Your task to perform on an android device: turn on translation in the chrome app Image 0: 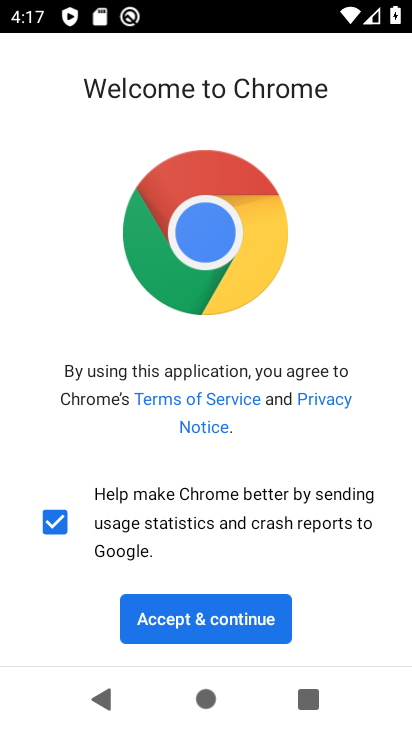
Step 0: press home button
Your task to perform on an android device: turn on translation in the chrome app Image 1: 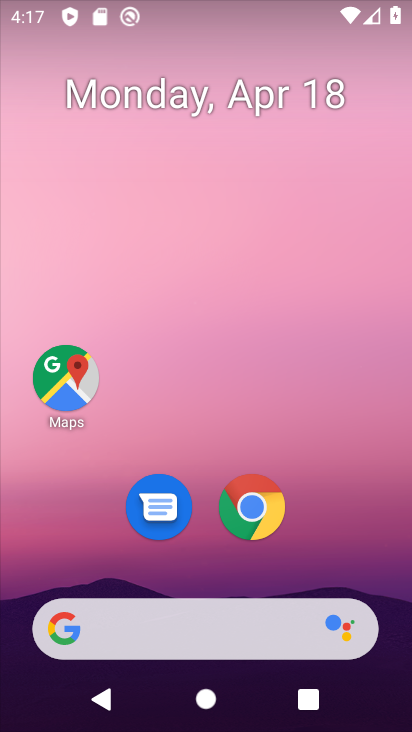
Step 1: click (253, 504)
Your task to perform on an android device: turn on translation in the chrome app Image 2: 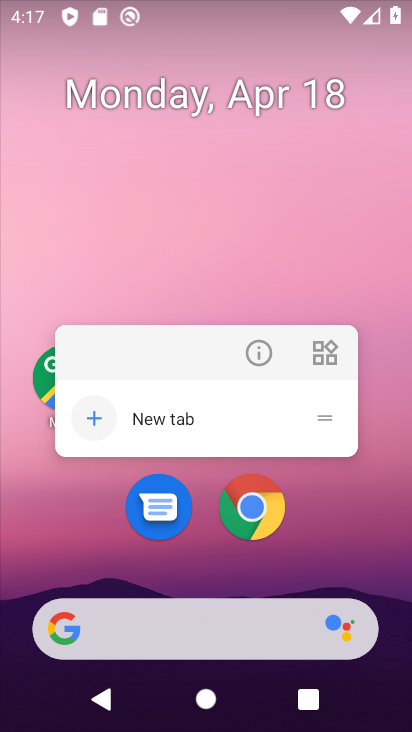
Step 2: drag from (230, 462) to (316, 88)
Your task to perform on an android device: turn on translation in the chrome app Image 3: 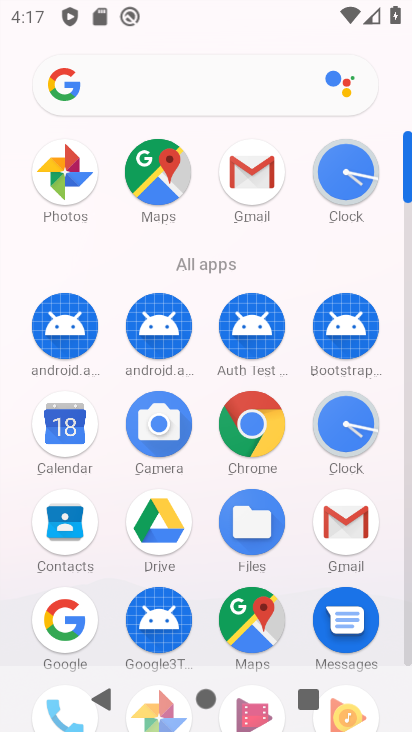
Step 3: click (247, 413)
Your task to perform on an android device: turn on translation in the chrome app Image 4: 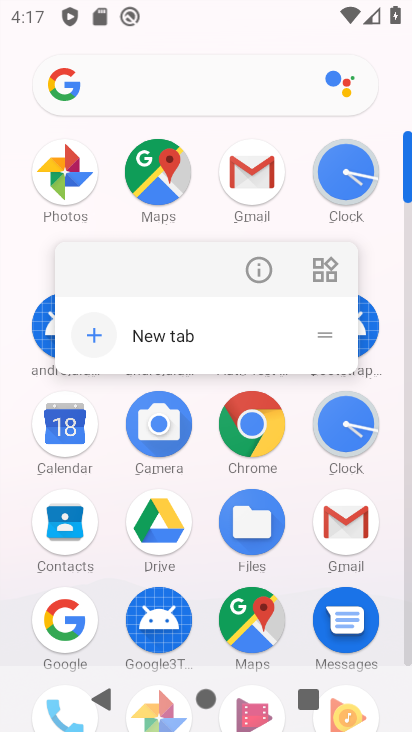
Step 4: click (255, 425)
Your task to perform on an android device: turn on translation in the chrome app Image 5: 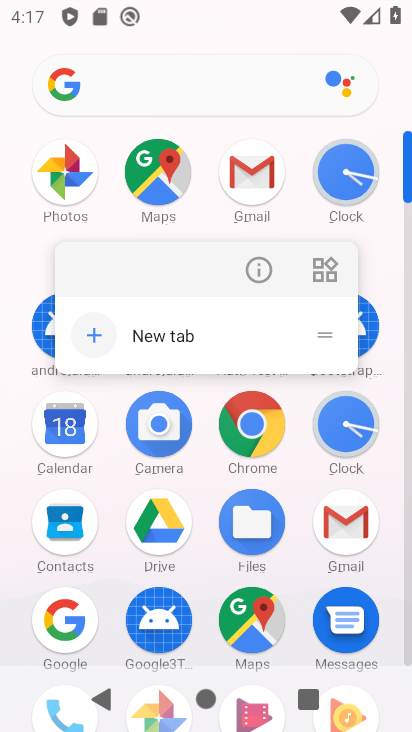
Step 5: click (255, 437)
Your task to perform on an android device: turn on translation in the chrome app Image 6: 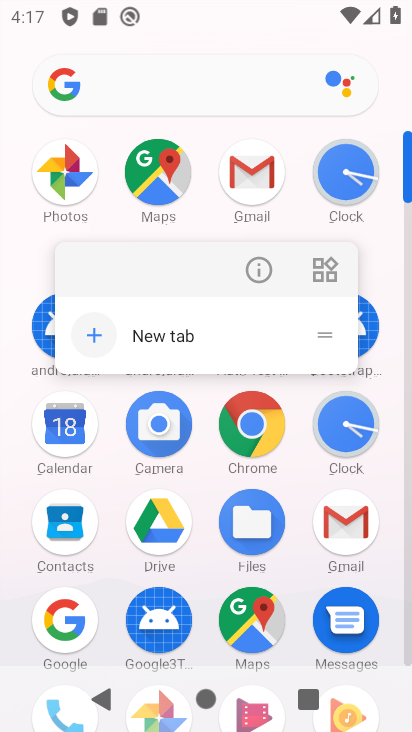
Step 6: click (251, 417)
Your task to perform on an android device: turn on translation in the chrome app Image 7: 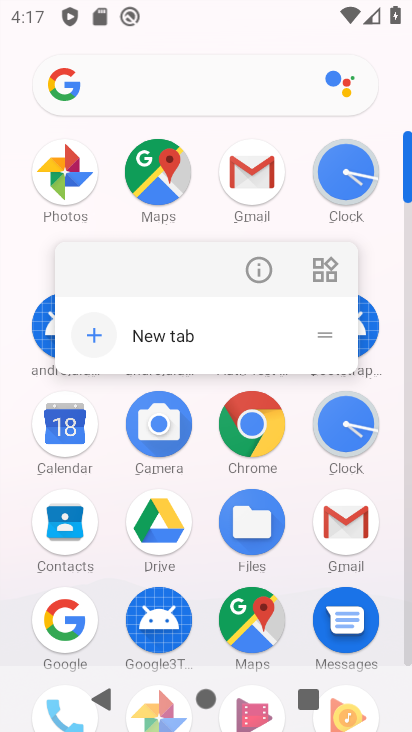
Step 7: click (255, 442)
Your task to perform on an android device: turn on translation in the chrome app Image 8: 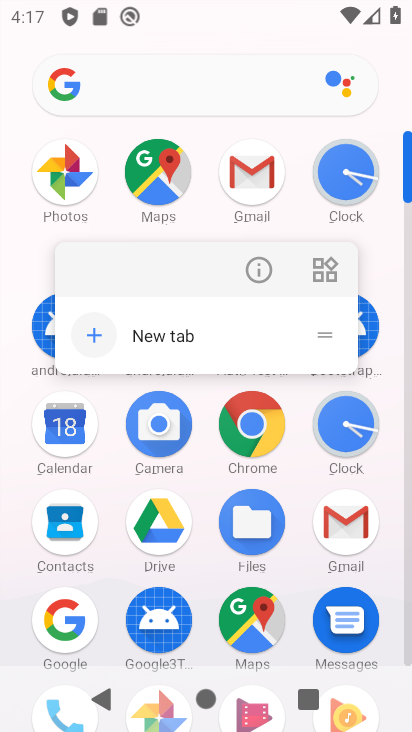
Step 8: click (251, 416)
Your task to perform on an android device: turn on translation in the chrome app Image 9: 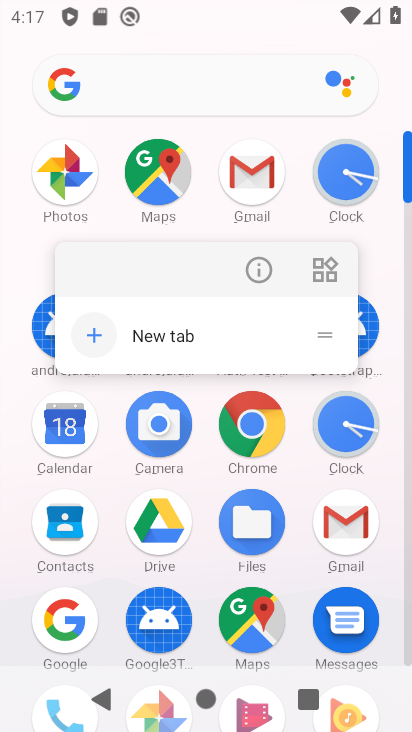
Step 9: click (251, 401)
Your task to perform on an android device: turn on translation in the chrome app Image 10: 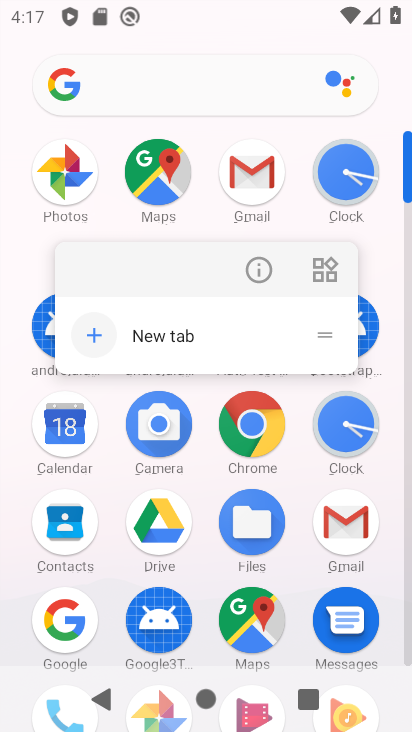
Step 10: click (254, 429)
Your task to perform on an android device: turn on translation in the chrome app Image 11: 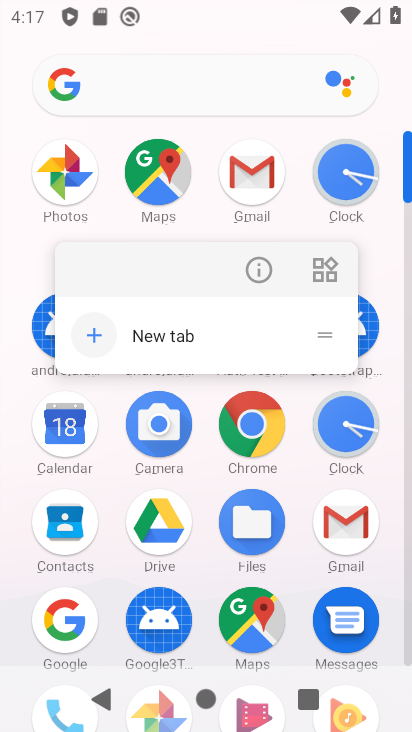
Step 11: drag from (213, 535) to (290, 169)
Your task to perform on an android device: turn on translation in the chrome app Image 12: 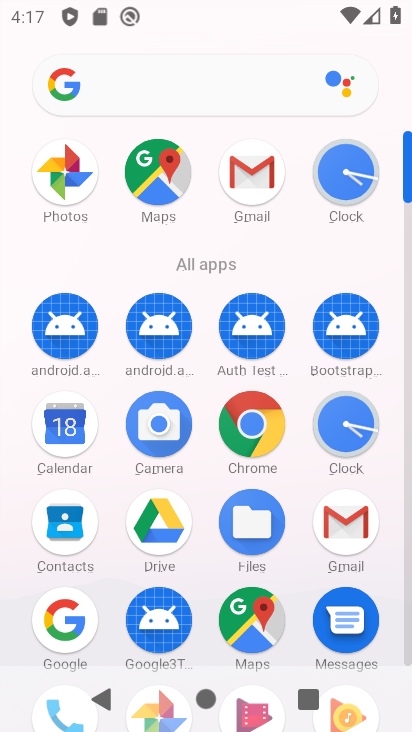
Step 12: click (225, 420)
Your task to perform on an android device: turn on translation in the chrome app Image 13: 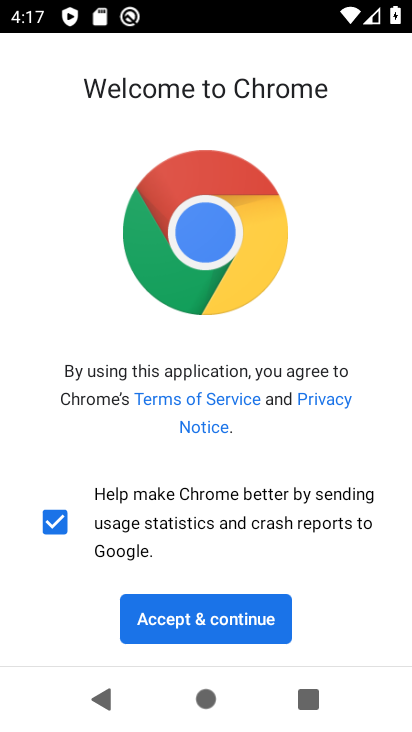
Step 13: click (222, 607)
Your task to perform on an android device: turn on translation in the chrome app Image 14: 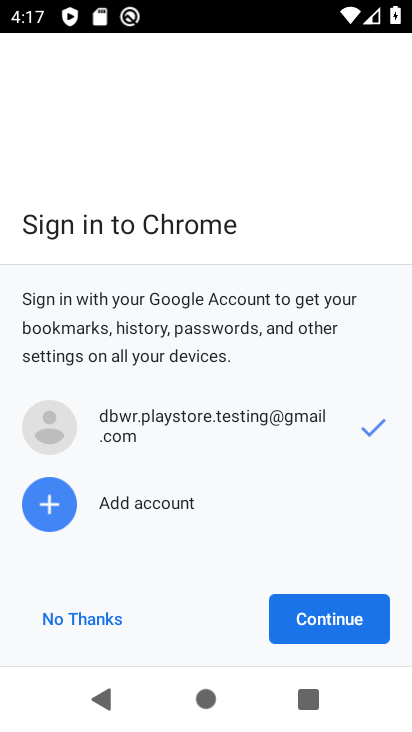
Step 14: click (341, 629)
Your task to perform on an android device: turn on translation in the chrome app Image 15: 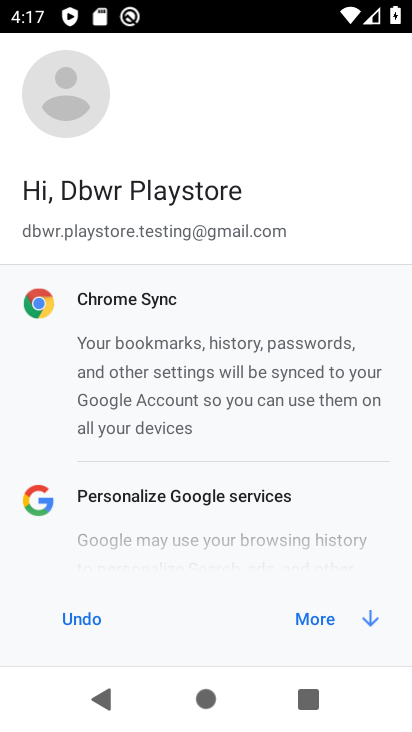
Step 15: click (332, 621)
Your task to perform on an android device: turn on translation in the chrome app Image 16: 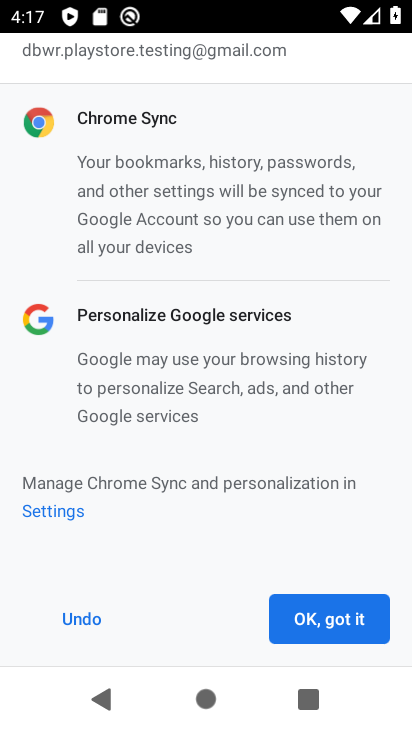
Step 16: click (332, 621)
Your task to perform on an android device: turn on translation in the chrome app Image 17: 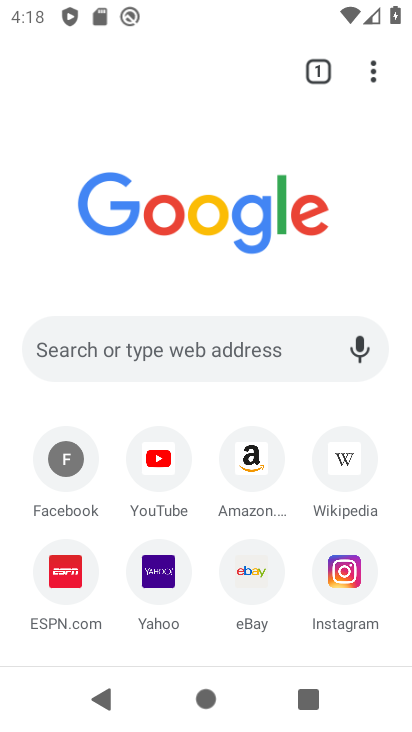
Step 17: click (370, 69)
Your task to perform on an android device: turn on translation in the chrome app Image 18: 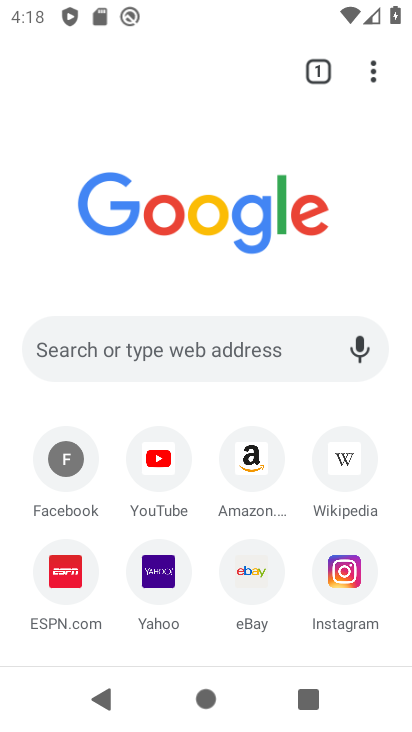
Step 18: click (374, 74)
Your task to perform on an android device: turn on translation in the chrome app Image 19: 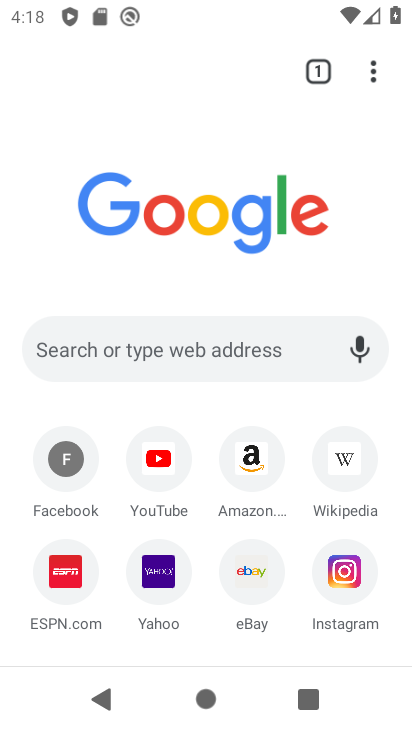
Step 19: click (375, 70)
Your task to perform on an android device: turn on translation in the chrome app Image 20: 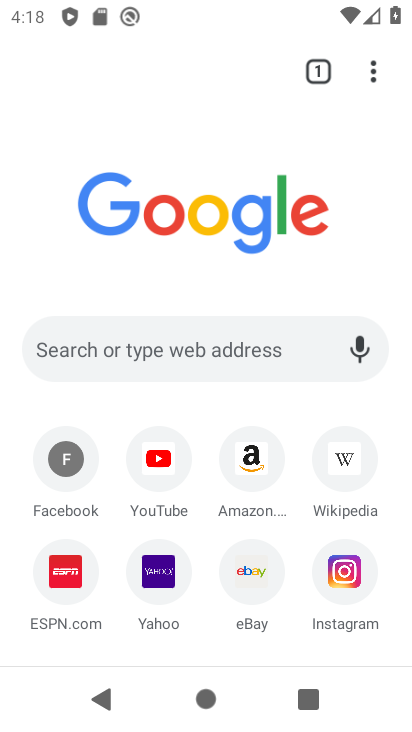
Step 20: click (370, 76)
Your task to perform on an android device: turn on translation in the chrome app Image 21: 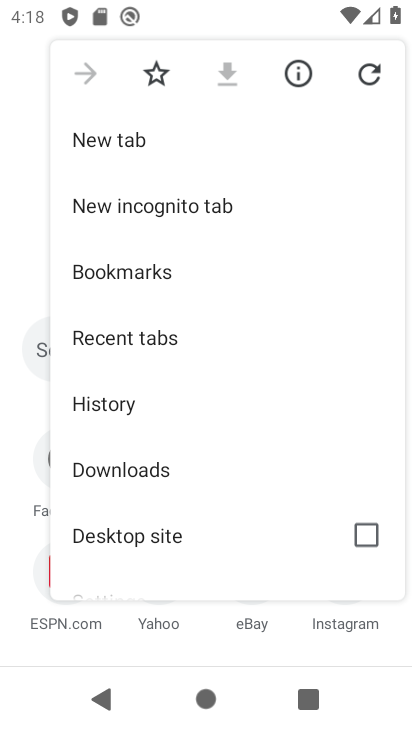
Step 21: drag from (138, 462) to (195, 193)
Your task to perform on an android device: turn on translation in the chrome app Image 22: 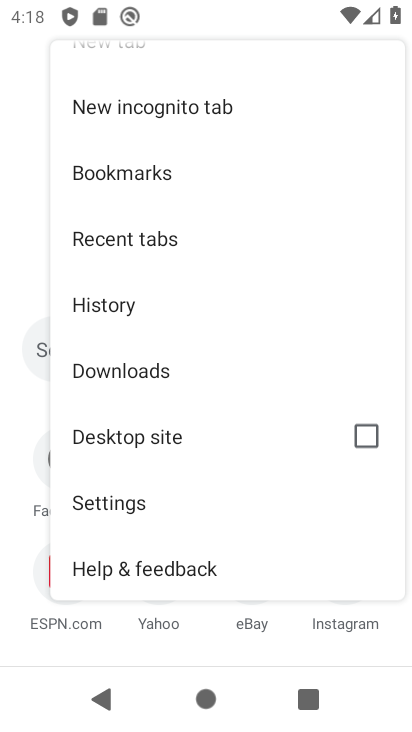
Step 22: click (119, 500)
Your task to perform on an android device: turn on translation in the chrome app Image 23: 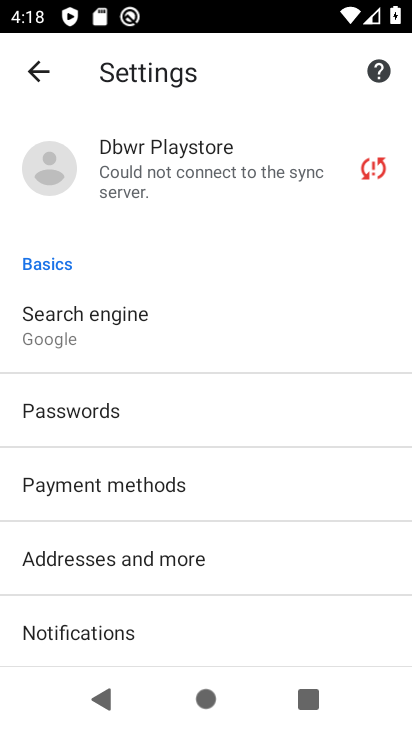
Step 23: click (219, 192)
Your task to perform on an android device: turn on translation in the chrome app Image 24: 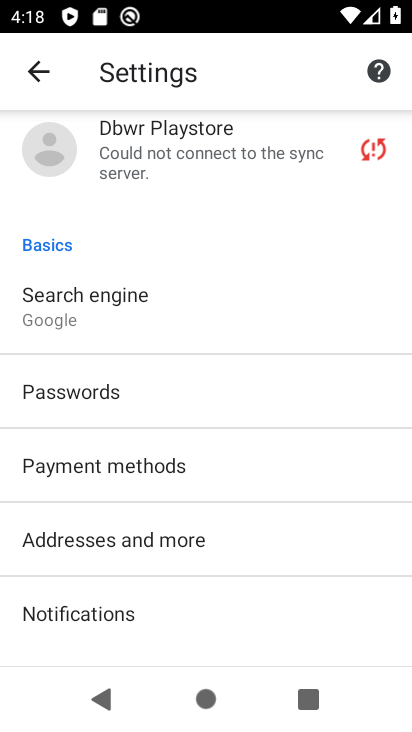
Step 24: drag from (148, 532) to (194, 227)
Your task to perform on an android device: turn on translation in the chrome app Image 25: 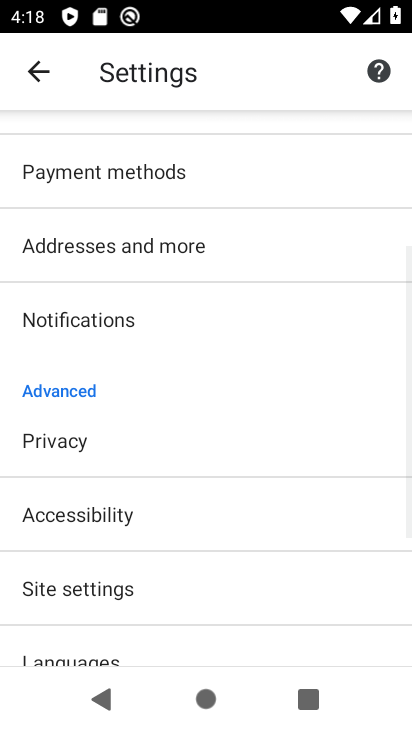
Step 25: drag from (137, 502) to (178, 249)
Your task to perform on an android device: turn on translation in the chrome app Image 26: 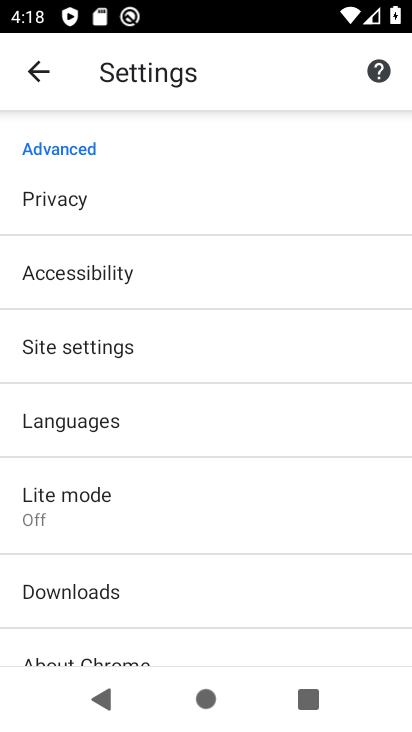
Step 26: click (70, 418)
Your task to perform on an android device: turn on translation in the chrome app Image 27: 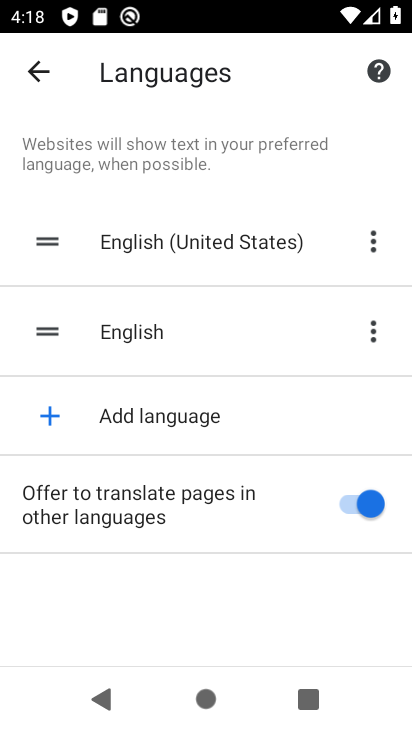
Step 27: task complete